Your task to perform on an android device: open a bookmark in the chrome app Image 0: 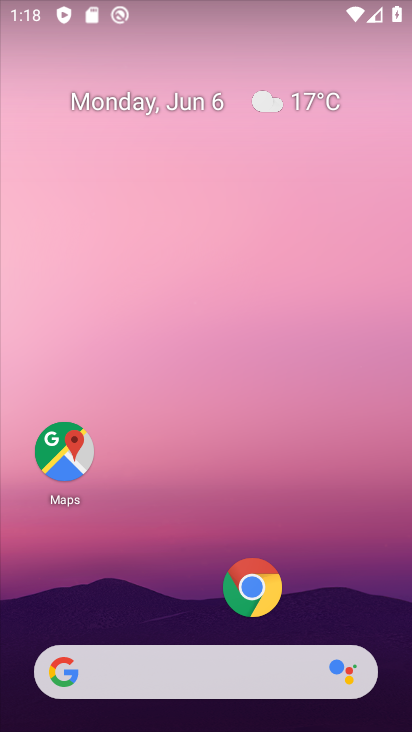
Step 0: click (251, 578)
Your task to perform on an android device: open a bookmark in the chrome app Image 1: 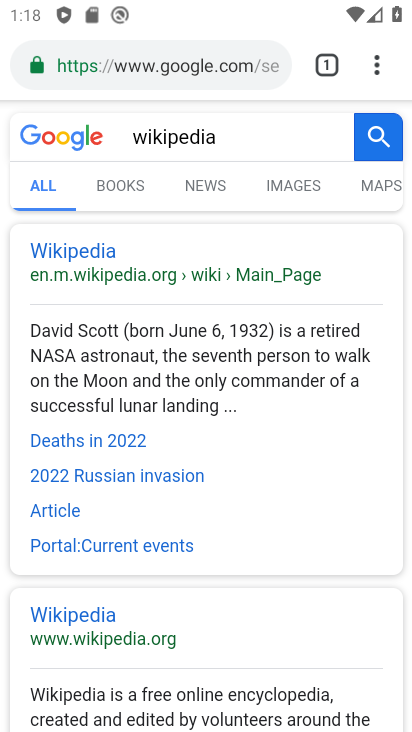
Step 1: click (378, 59)
Your task to perform on an android device: open a bookmark in the chrome app Image 2: 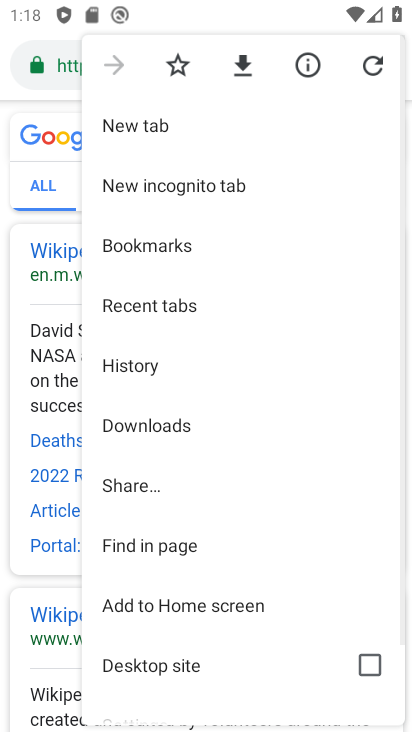
Step 2: click (168, 251)
Your task to perform on an android device: open a bookmark in the chrome app Image 3: 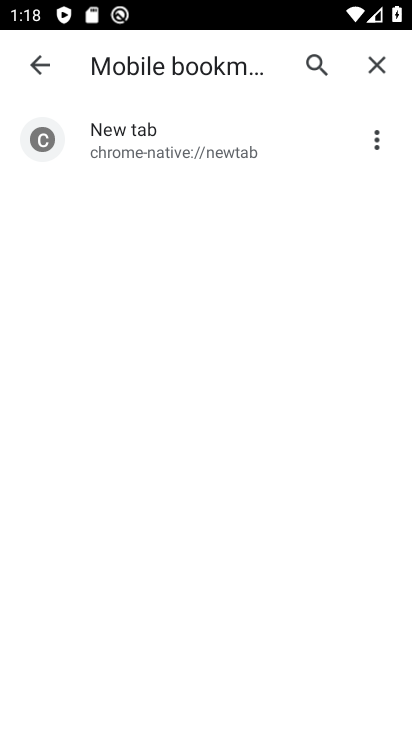
Step 3: click (153, 144)
Your task to perform on an android device: open a bookmark in the chrome app Image 4: 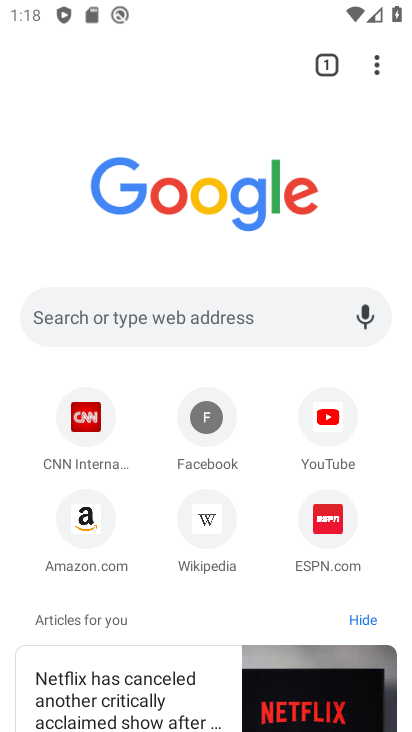
Step 4: task complete